Your task to perform on an android device: turn on wifi Image 0: 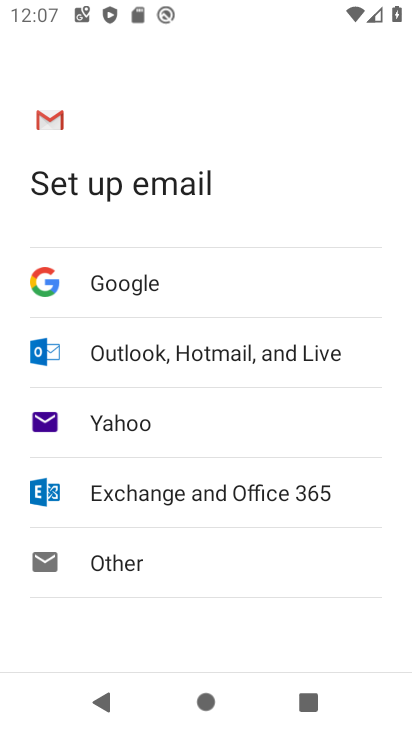
Step 0: press home button
Your task to perform on an android device: turn on wifi Image 1: 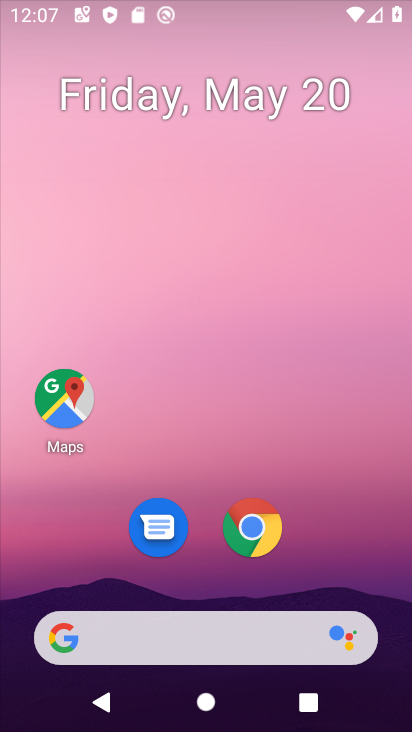
Step 1: task complete